Your task to perform on an android device: Is it going to rain this weekend? Image 0: 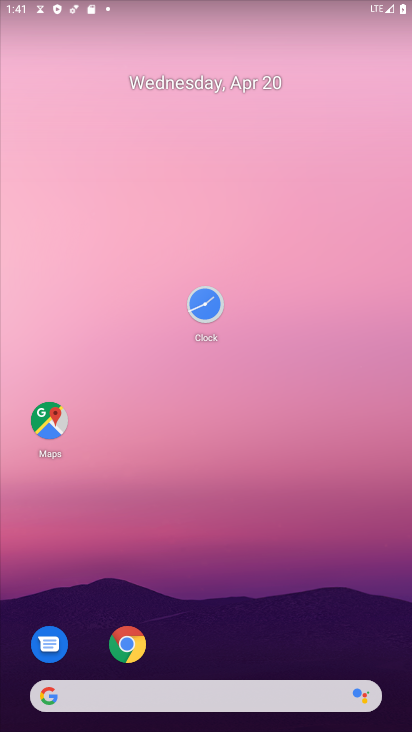
Step 0: drag from (335, 620) to (365, 69)
Your task to perform on an android device: Is it going to rain this weekend? Image 1: 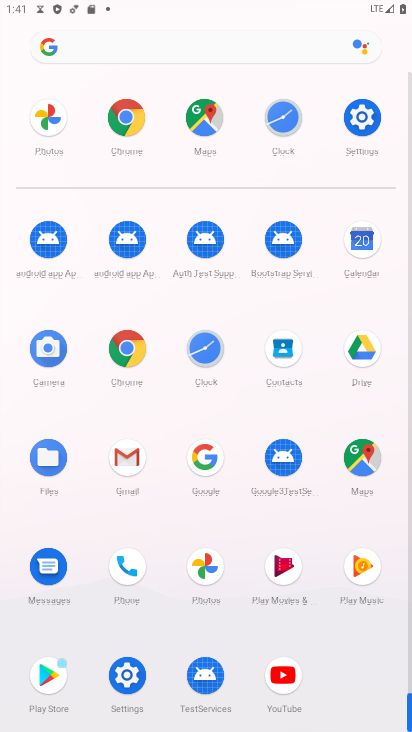
Step 1: click (135, 352)
Your task to perform on an android device: Is it going to rain this weekend? Image 2: 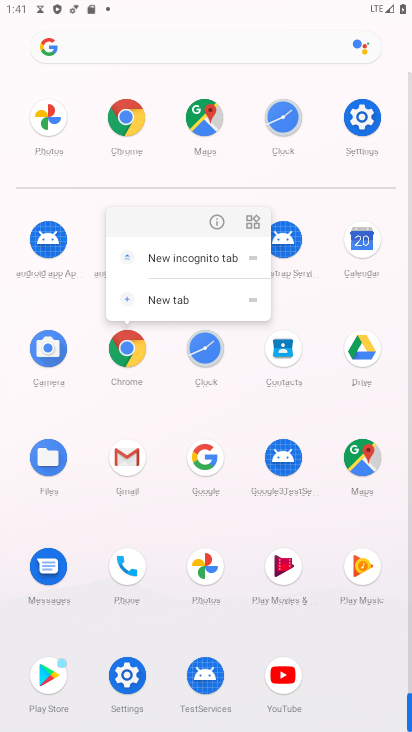
Step 2: click (135, 352)
Your task to perform on an android device: Is it going to rain this weekend? Image 3: 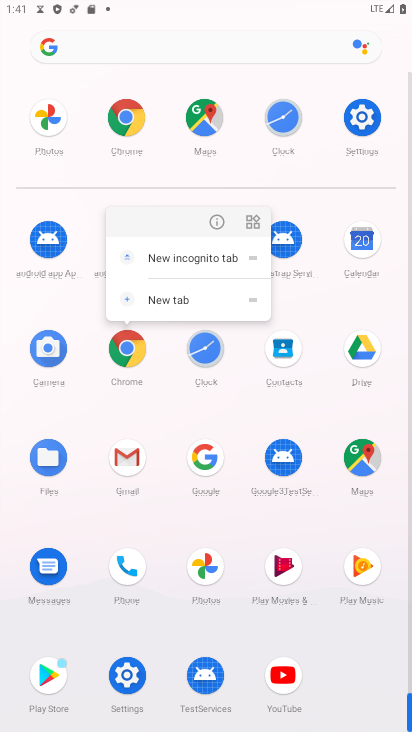
Step 3: click (125, 364)
Your task to perform on an android device: Is it going to rain this weekend? Image 4: 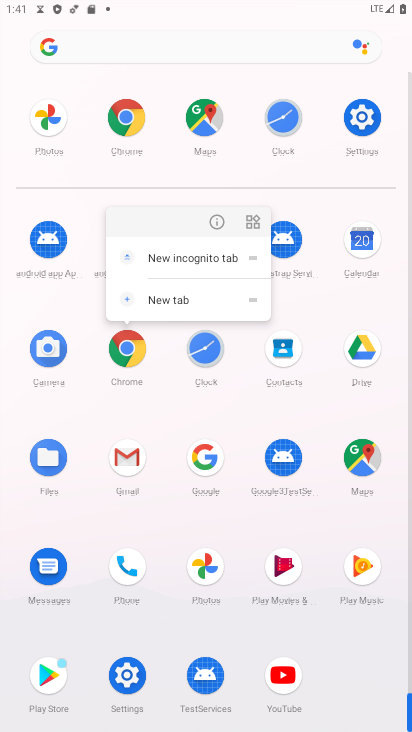
Step 4: click (130, 362)
Your task to perform on an android device: Is it going to rain this weekend? Image 5: 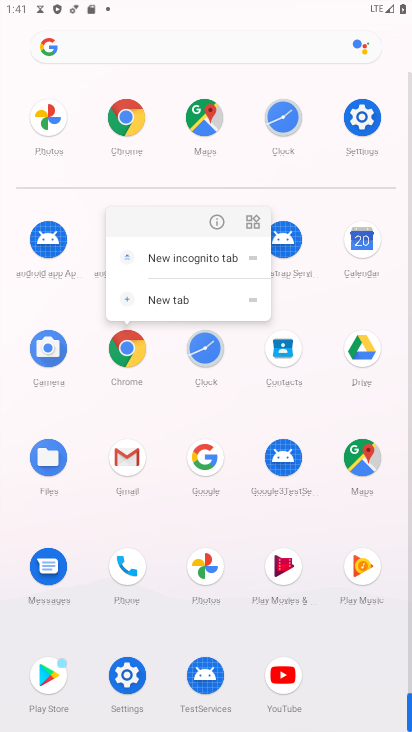
Step 5: click (130, 362)
Your task to perform on an android device: Is it going to rain this weekend? Image 6: 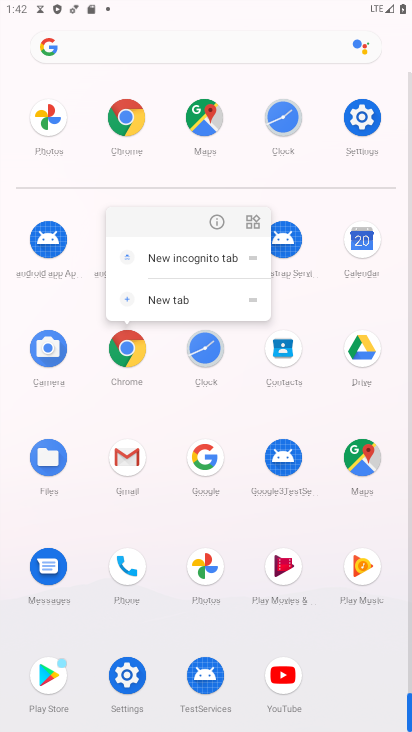
Step 6: click (133, 359)
Your task to perform on an android device: Is it going to rain this weekend? Image 7: 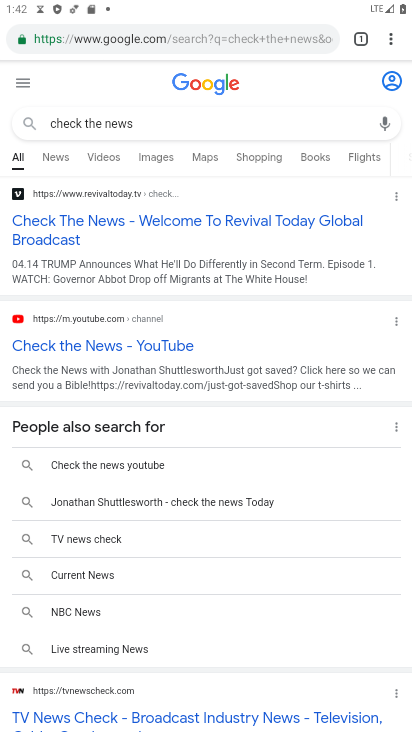
Step 7: click (196, 126)
Your task to perform on an android device: Is it going to rain this weekend? Image 8: 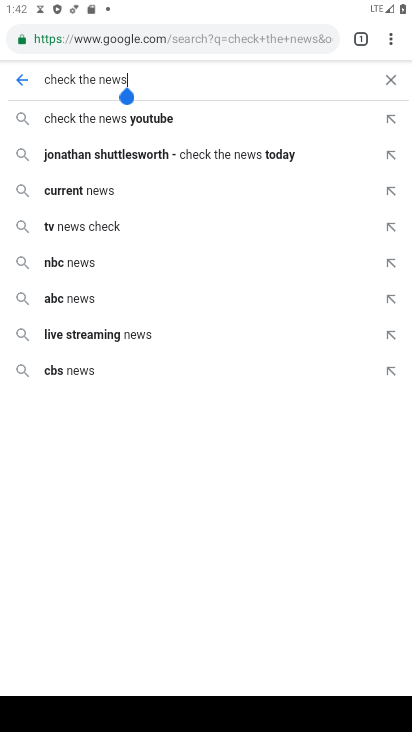
Step 8: click (280, 39)
Your task to perform on an android device: Is it going to rain this weekend? Image 9: 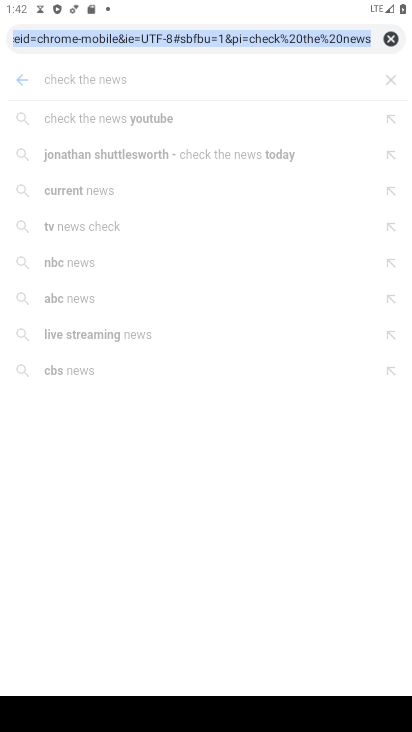
Step 9: click (389, 38)
Your task to perform on an android device: Is it going to rain this weekend? Image 10: 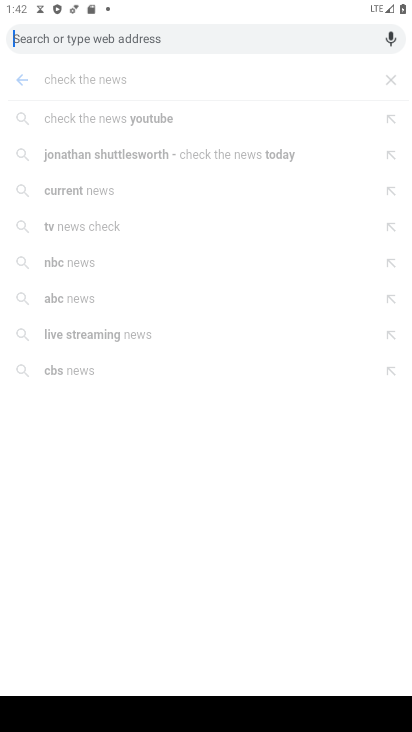
Step 10: type "rain this weekend"
Your task to perform on an android device: Is it going to rain this weekend? Image 11: 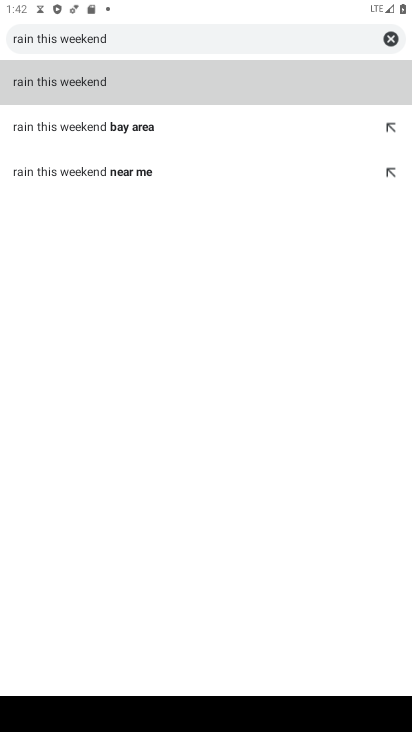
Step 11: click (217, 74)
Your task to perform on an android device: Is it going to rain this weekend? Image 12: 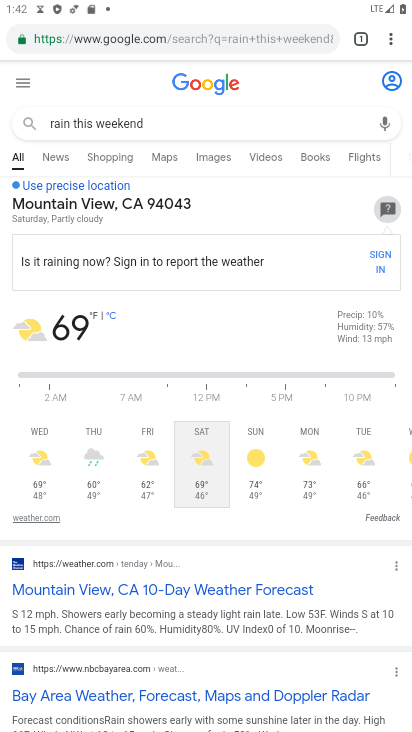
Step 12: task complete